Your task to perform on an android device: turn on airplane mode Image 0: 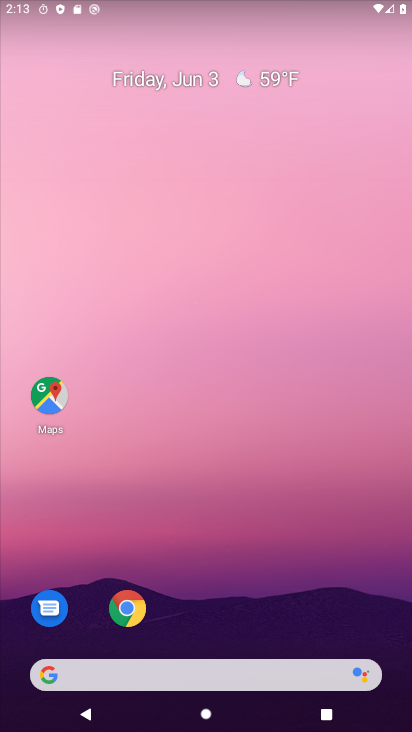
Step 0: drag from (170, 652) to (229, 160)
Your task to perform on an android device: turn on airplane mode Image 1: 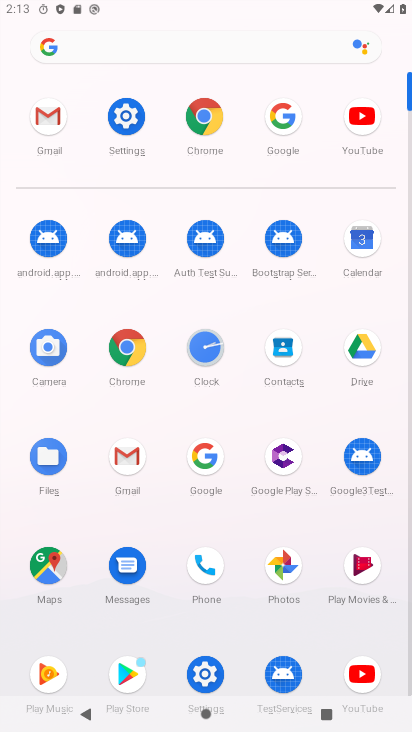
Step 1: click (137, 123)
Your task to perform on an android device: turn on airplane mode Image 2: 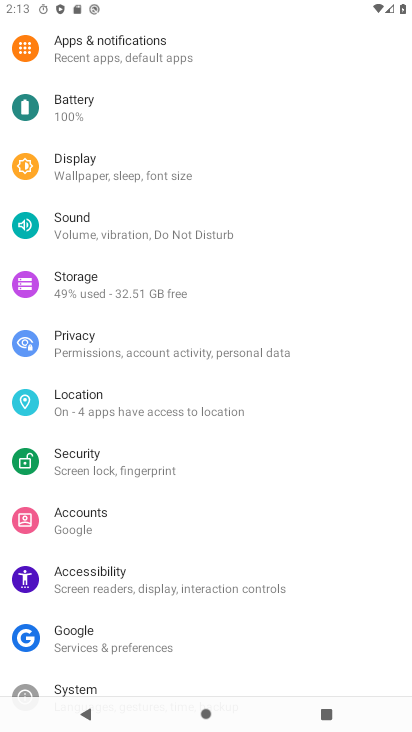
Step 2: drag from (230, 198) to (255, 528)
Your task to perform on an android device: turn on airplane mode Image 3: 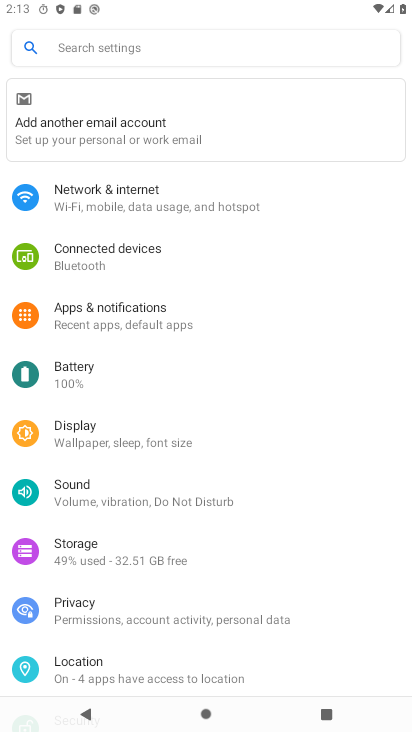
Step 3: click (162, 185)
Your task to perform on an android device: turn on airplane mode Image 4: 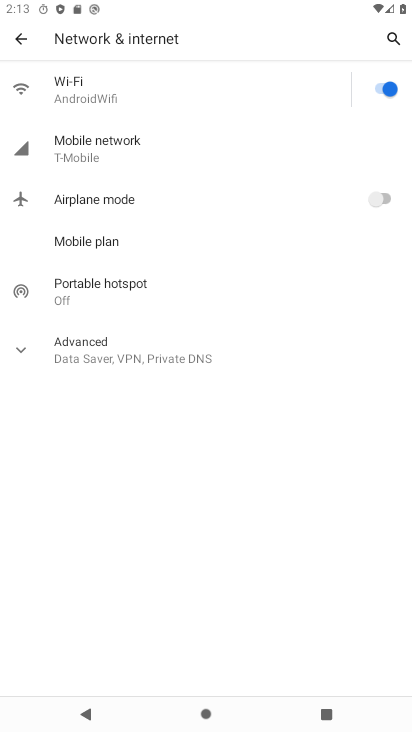
Step 4: click (369, 198)
Your task to perform on an android device: turn on airplane mode Image 5: 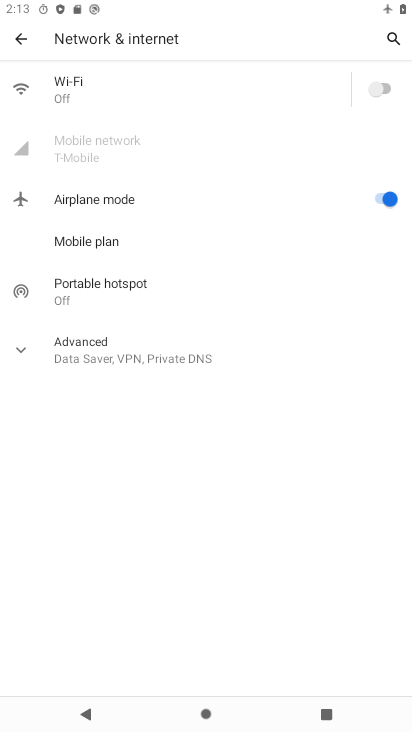
Step 5: task complete